Your task to perform on an android device: check the backup settings in the google photos Image 0: 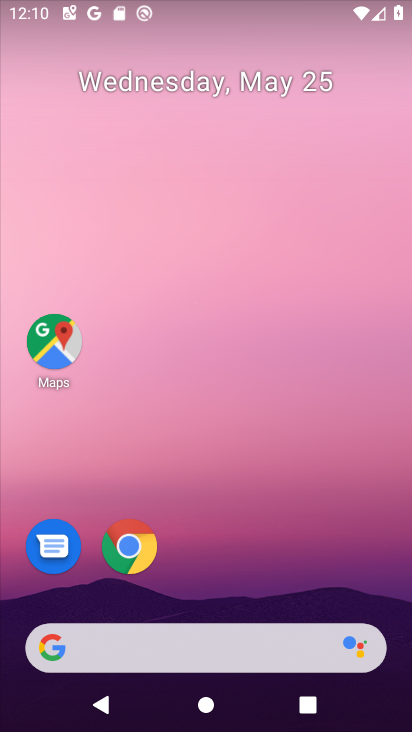
Step 0: drag from (283, 557) to (281, 98)
Your task to perform on an android device: check the backup settings in the google photos Image 1: 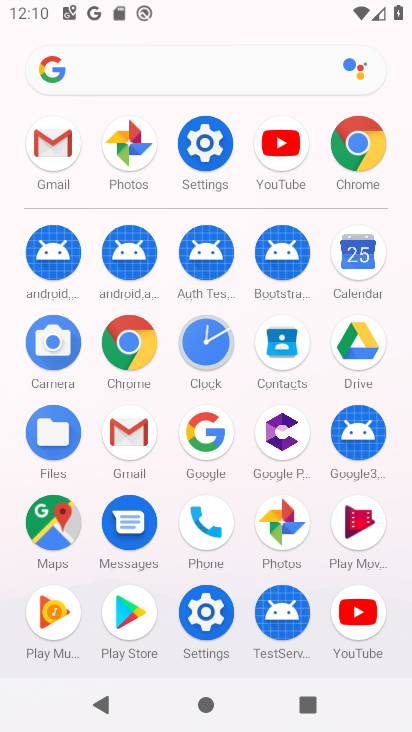
Step 1: click (276, 539)
Your task to perform on an android device: check the backup settings in the google photos Image 2: 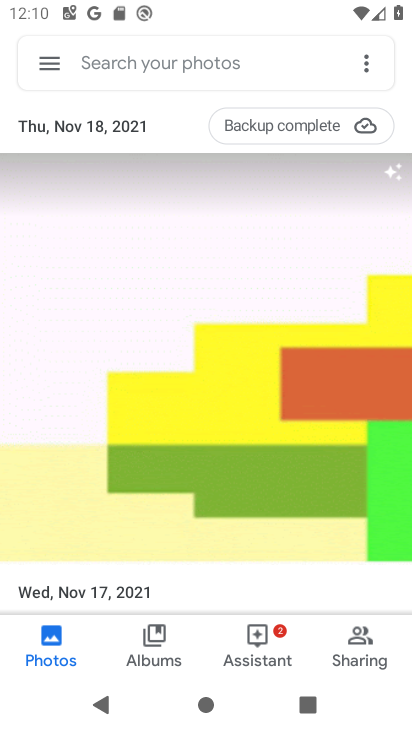
Step 2: click (47, 59)
Your task to perform on an android device: check the backup settings in the google photos Image 3: 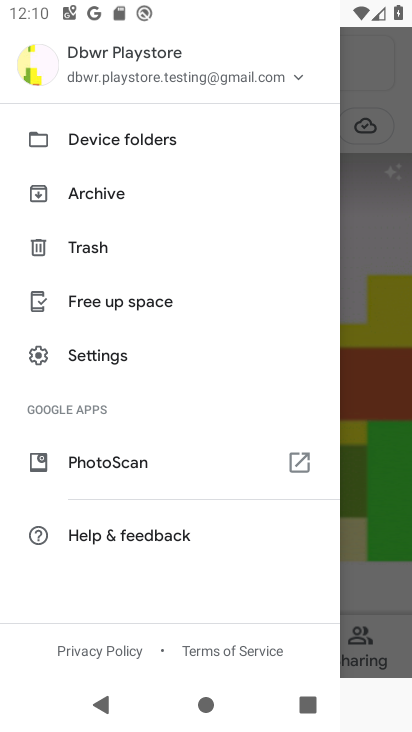
Step 3: click (110, 357)
Your task to perform on an android device: check the backup settings in the google photos Image 4: 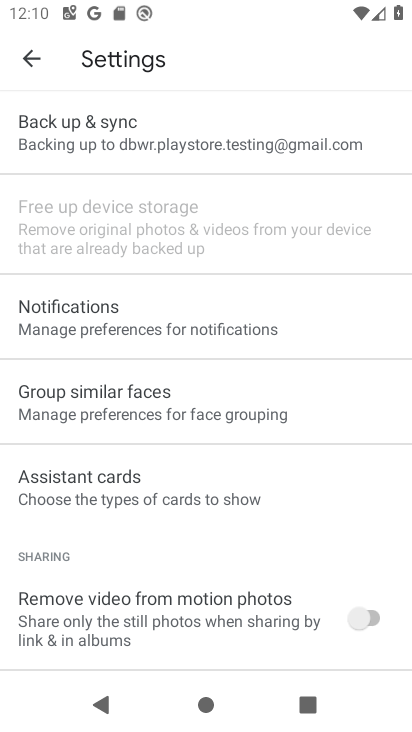
Step 4: click (142, 138)
Your task to perform on an android device: check the backup settings in the google photos Image 5: 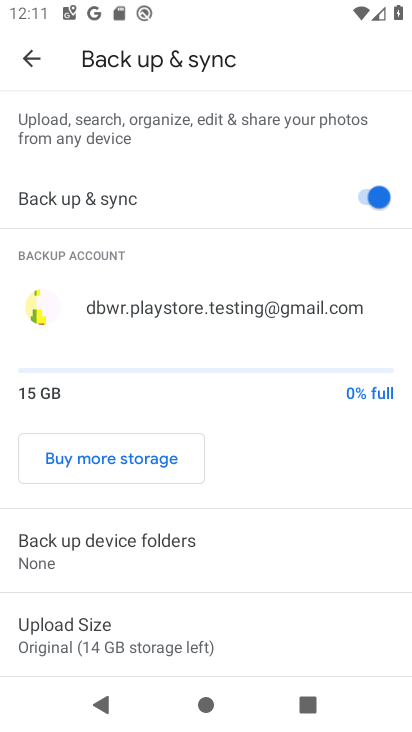
Step 5: task complete